Your task to perform on an android device: Open internet settings Image 0: 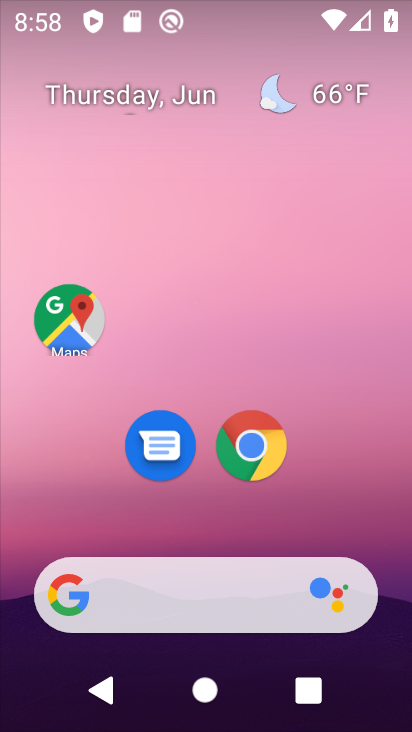
Step 0: drag from (309, 513) to (242, 13)
Your task to perform on an android device: Open internet settings Image 1: 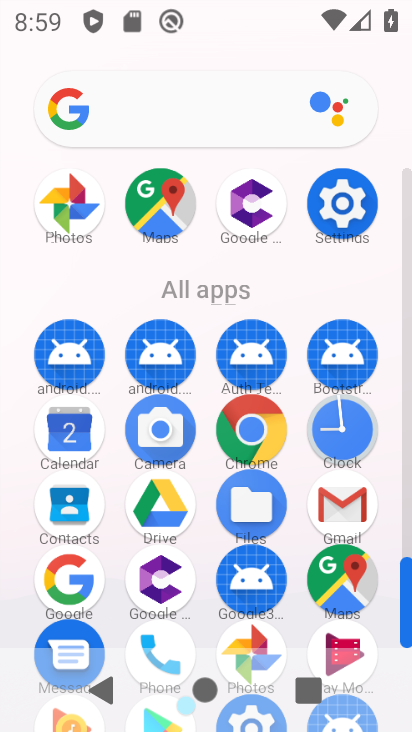
Step 1: click (333, 213)
Your task to perform on an android device: Open internet settings Image 2: 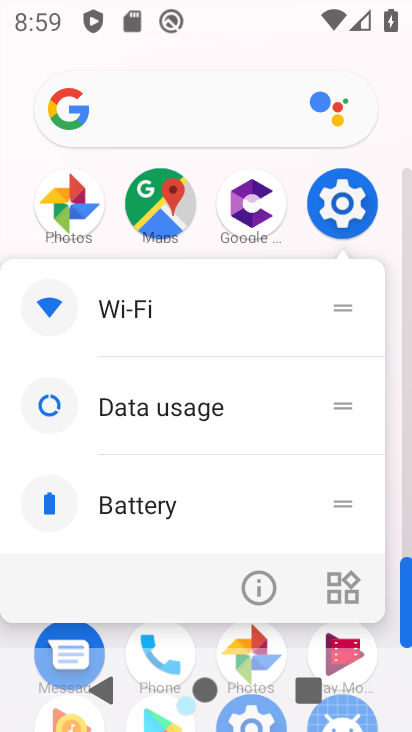
Step 2: click (336, 189)
Your task to perform on an android device: Open internet settings Image 3: 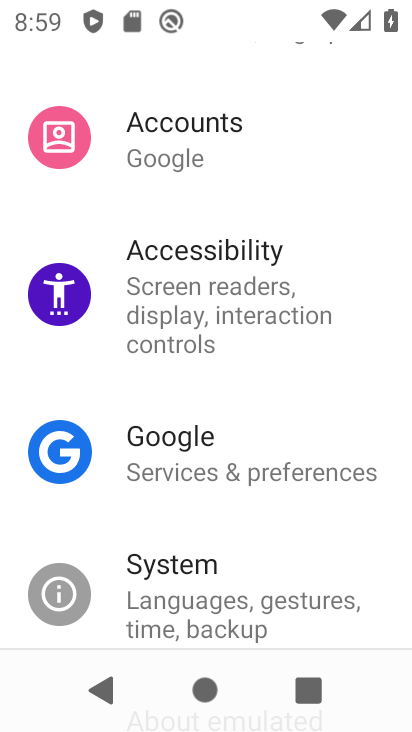
Step 3: drag from (237, 244) to (258, 559)
Your task to perform on an android device: Open internet settings Image 4: 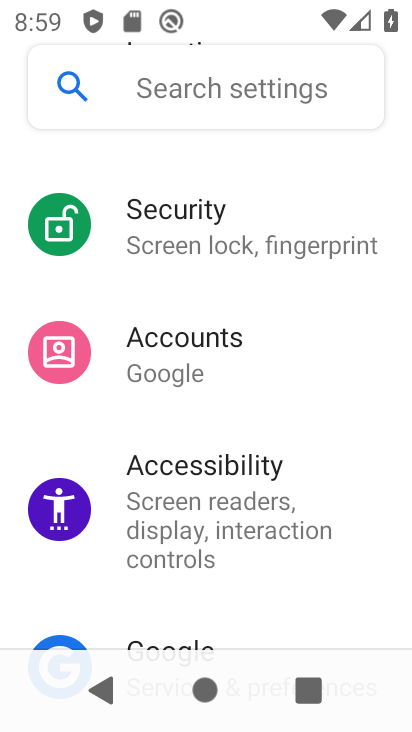
Step 4: drag from (218, 311) to (229, 600)
Your task to perform on an android device: Open internet settings Image 5: 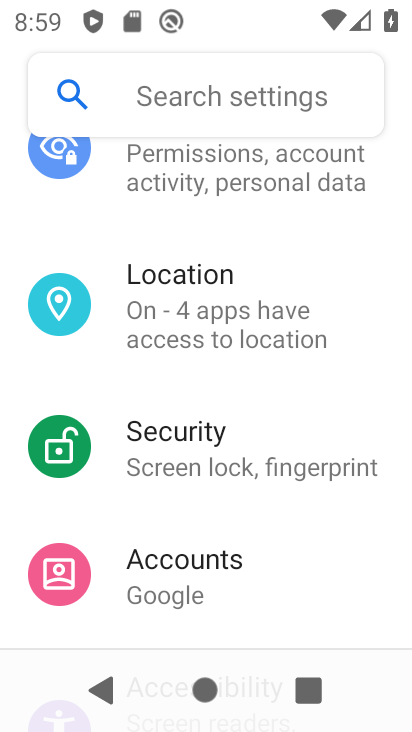
Step 5: drag from (202, 242) to (195, 532)
Your task to perform on an android device: Open internet settings Image 6: 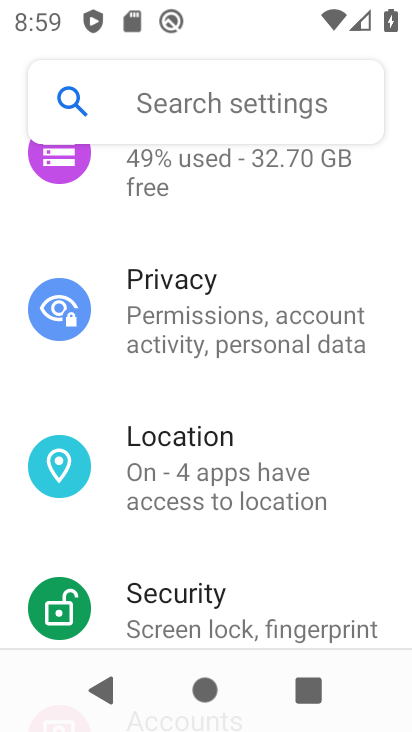
Step 6: drag from (177, 307) to (227, 587)
Your task to perform on an android device: Open internet settings Image 7: 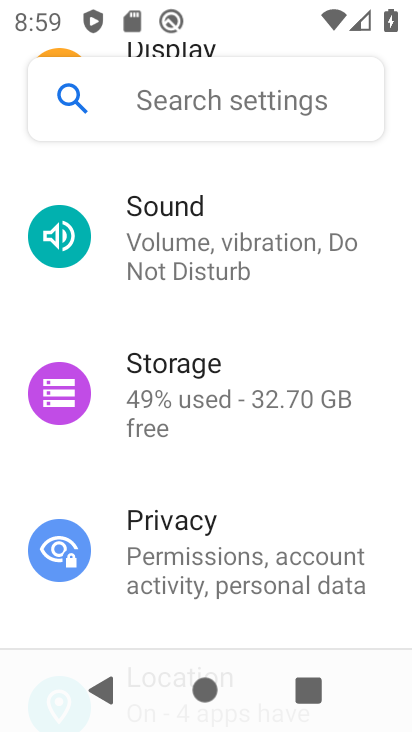
Step 7: drag from (247, 287) to (210, 634)
Your task to perform on an android device: Open internet settings Image 8: 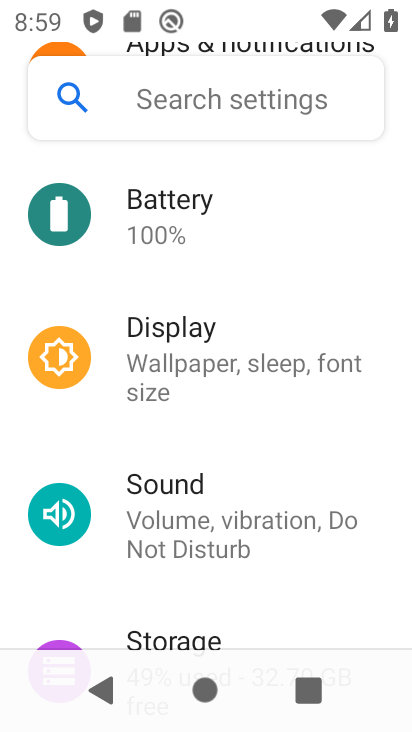
Step 8: drag from (186, 332) to (195, 655)
Your task to perform on an android device: Open internet settings Image 9: 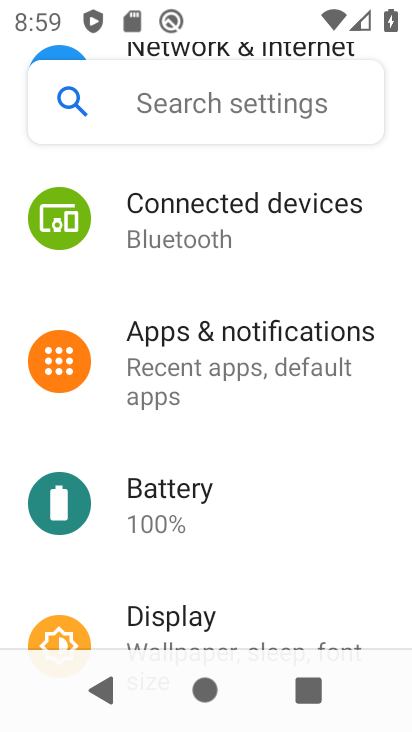
Step 9: drag from (220, 295) to (220, 544)
Your task to perform on an android device: Open internet settings Image 10: 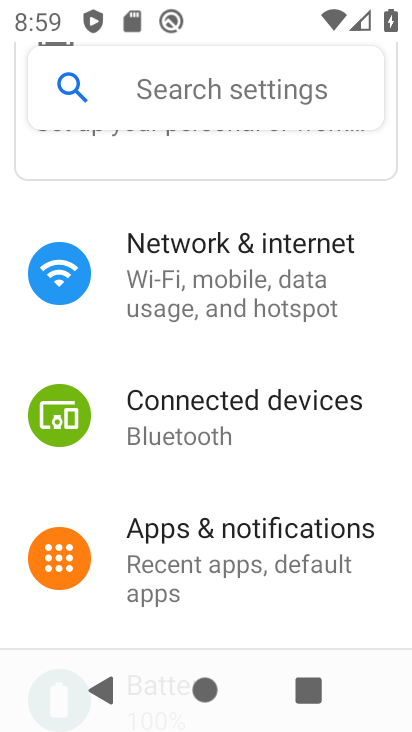
Step 10: click (269, 265)
Your task to perform on an android device: Open internet settings Image 11: 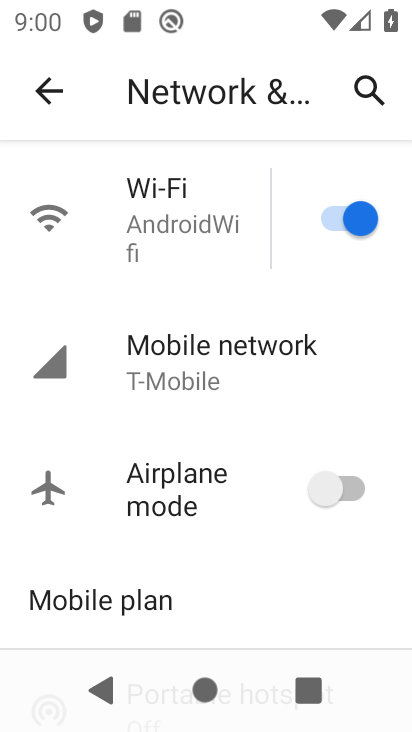
Step 11: click (156, 369)
Your task to perform on an android device: Open internet settings Image 12: 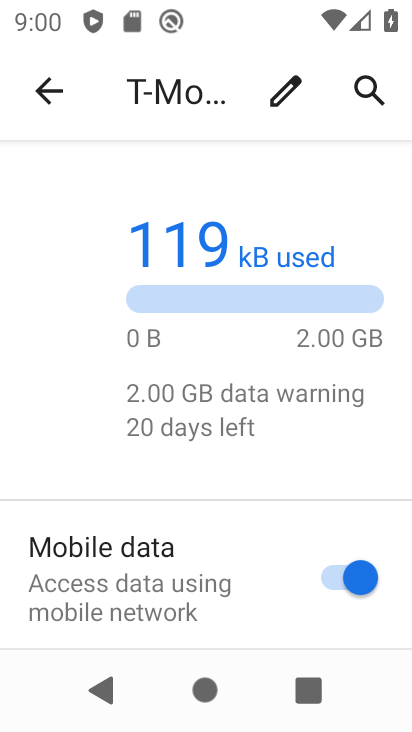
Step 12: task complete